Your task to perform on an android device: What is the news today? Image 0: 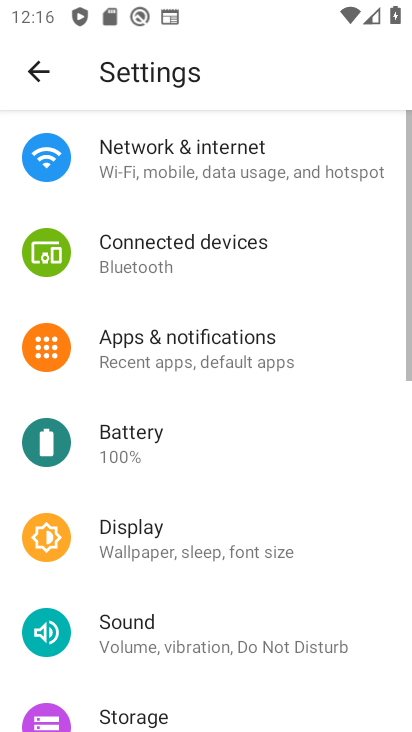
Step 0: press home button
Your task to perform on an android device: What is the news today? Image 1: 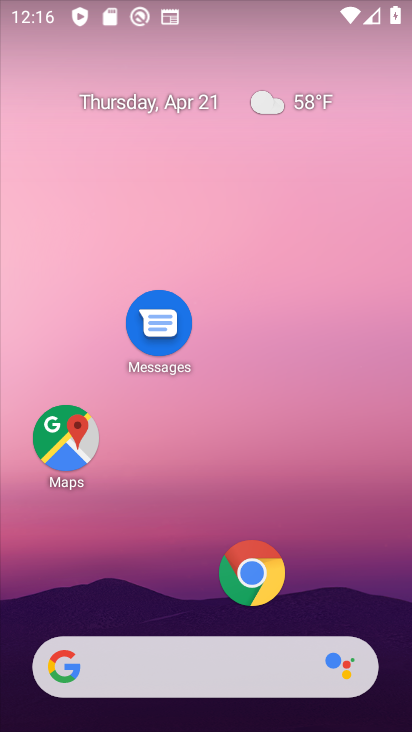
Step 1: drag from (180, 538) to (166, 74)
Your task to perform on an android device: What is the news today? Image 2: 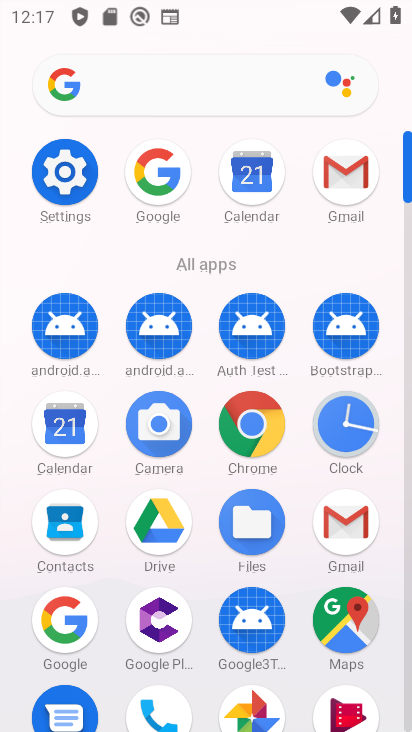
Step 2: click (159, 178)
Your task to perform on an android device: What is the news today? Image 3: 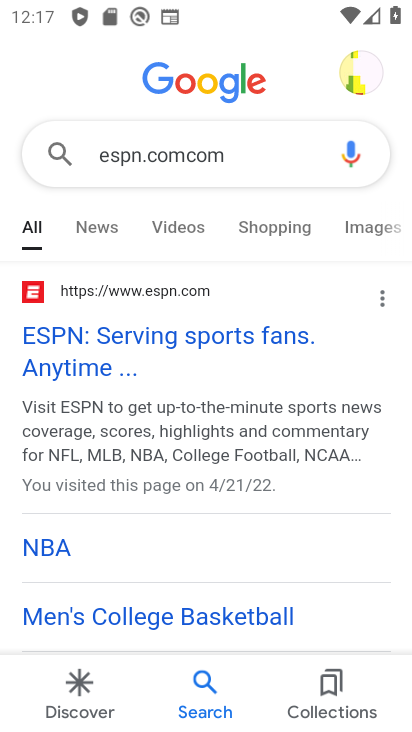
Step 3: click (265, 151)
Your task to perform on an android device: What is the news today? Image 4: 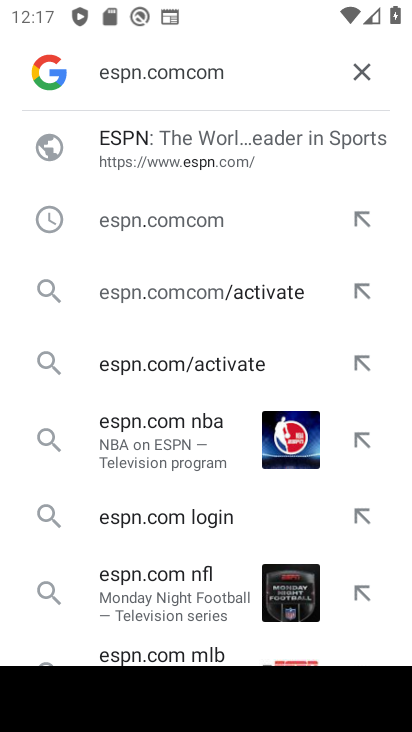
Step 4: click (361, 72)
Your task to perform on an android device: What is the news today? Image 5: 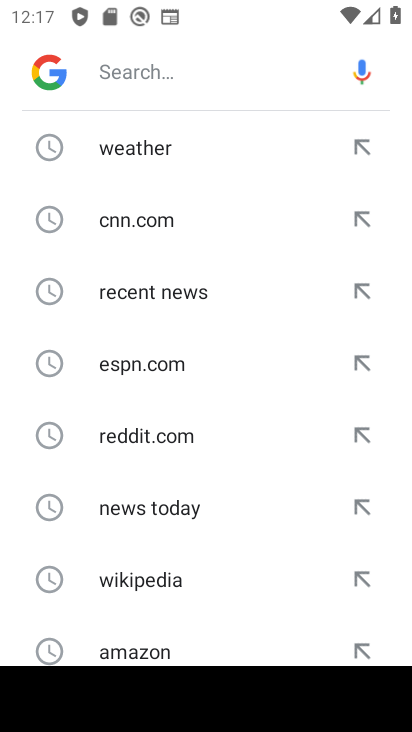
Step 5: click (164, 507)
Your task to perform on an android device: What is the news today? Image 6: 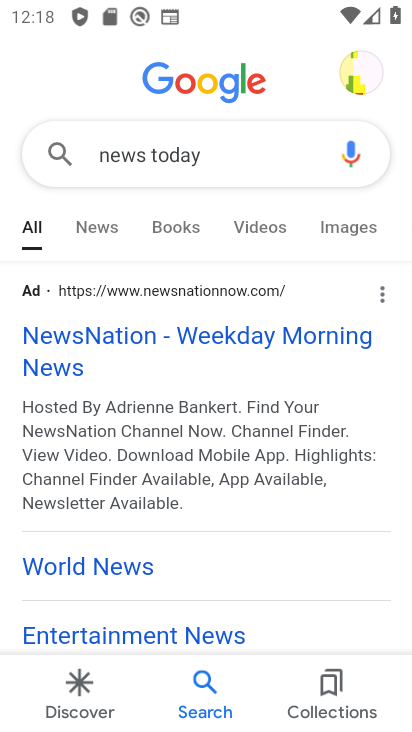
Step 6: task complete